Your task to perform on an android device: snooze an email in the gmail app Image 0: 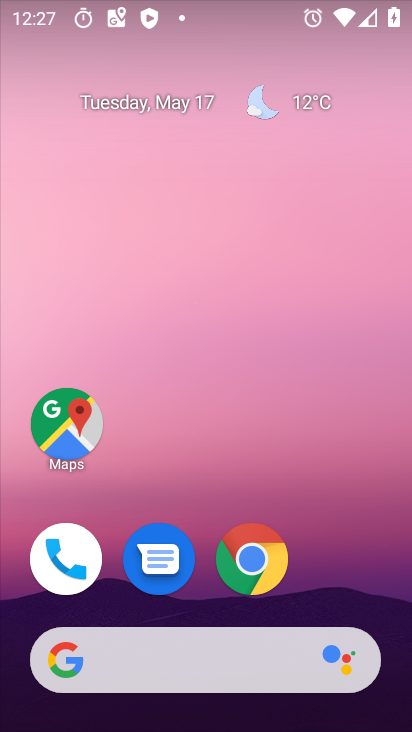
Step 0: drag from (378, 502) to (306, 49)
Your task to perform on an android device: snooze an email in the gmail app Image 1: 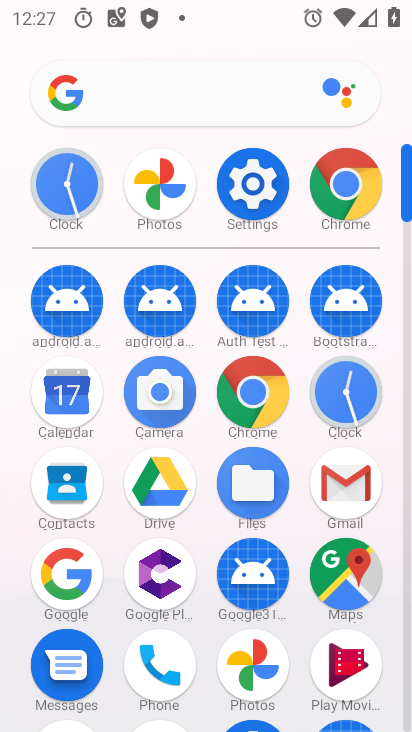
Step 1: click (341, 480)
Your task to perform on an android device: snooze an email in the gmail app Image 2: 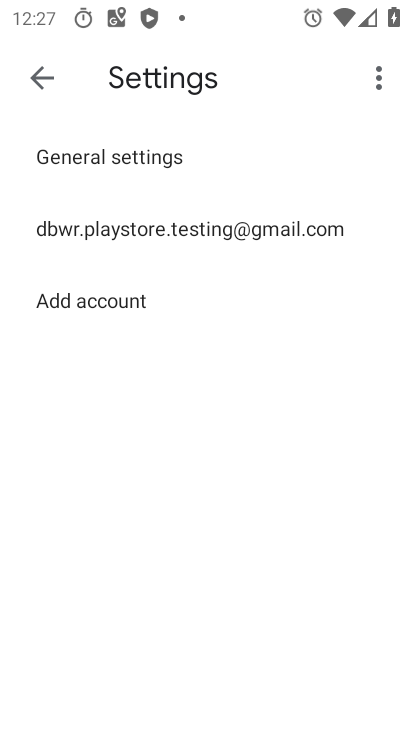
Step 2: click (44, 91)
Your task to perform on an android device: snooze an email in the gmail app Image 3: 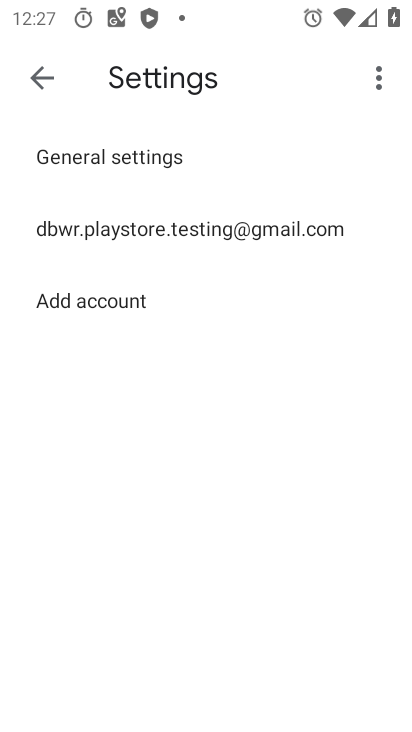
Step 3: click (56, 90)
Your task to perform on an android device: snooze an email in the gmail app Image 4: 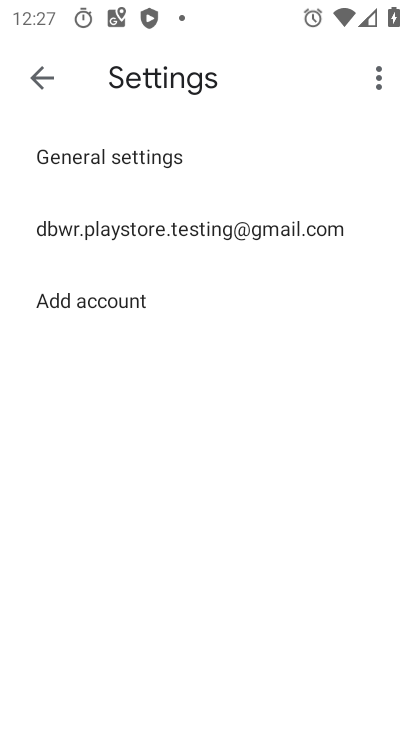
Step 4: click (50, 86)
Your task to perform on an android device: snooze an email in the gmail app Image 5: 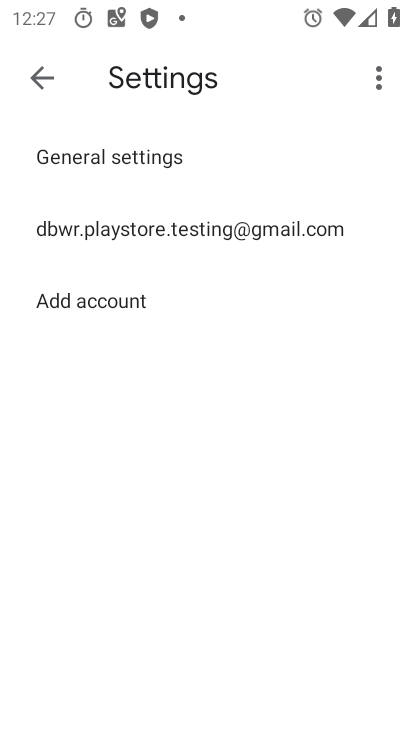
Step 5: click (45, 80)
Your task to perform on an android device: snooze an email in the gmail app Image 6: 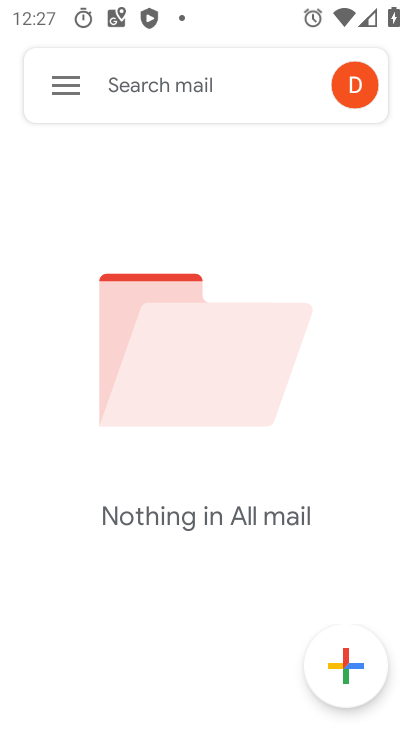
Step 6: click (46, 79)
Your task to perform on an android device: snooze an email in the gmail app Image 7: 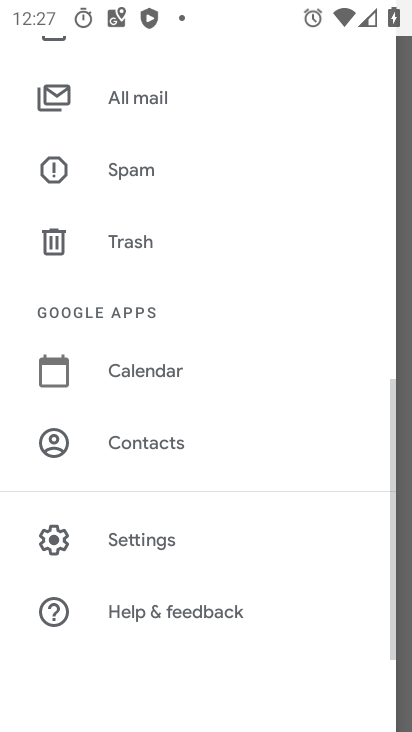
Step 7: click (128, 106)
Your task to perform on an android device: snooze an email in the gmail app Image 8: 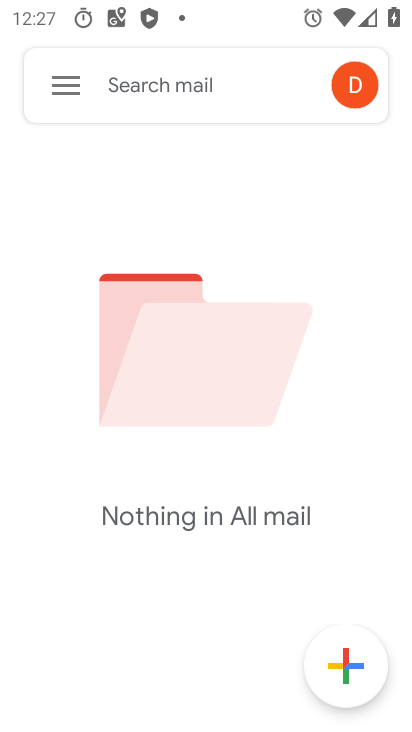
Step 8: task complete